Your task to perform on an android device: Go to wifi settings Image 0: 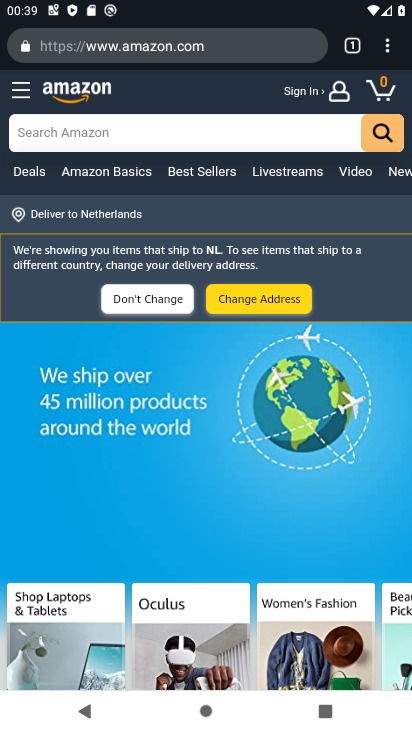
Step 0: press home button
Your task to perform on an android device: Go to wifi settings Image 1: 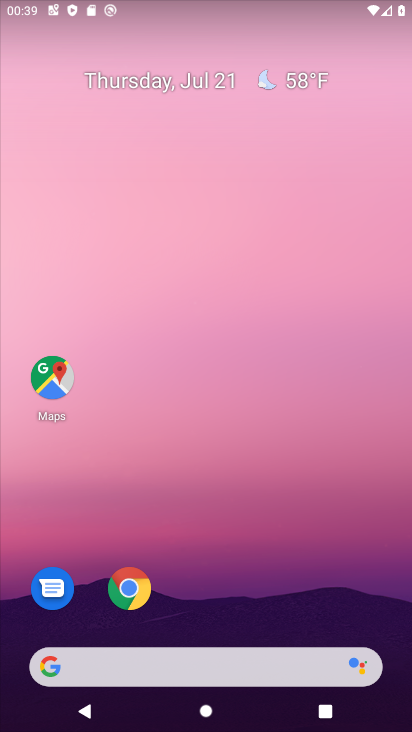
Step 1: drag from (200, 557) to (234, 18)
Your task to perform on an android device: Go to wifi settings Image 2: 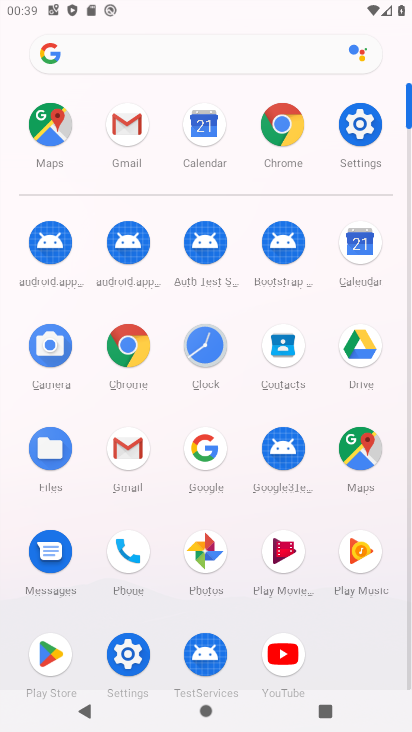
Step 2: click (355, 141)
Your task to perform on an android device: Go to wifi settings Image 3: 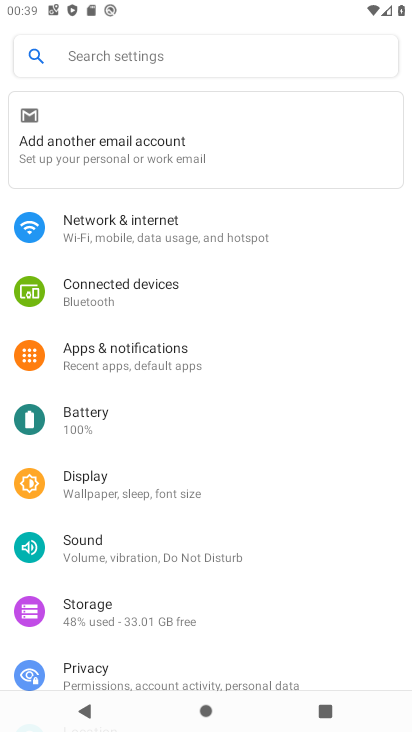
Step 3: click (103, 240)
Your task to perform on an android device: Go to wifi settings Image 4: 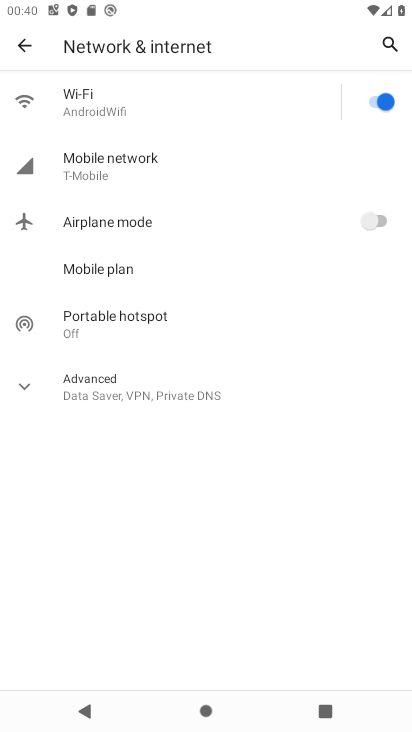
Step 4: click (119, 103)
Your task to perform on an android device: Go to wifi settings Image 5: 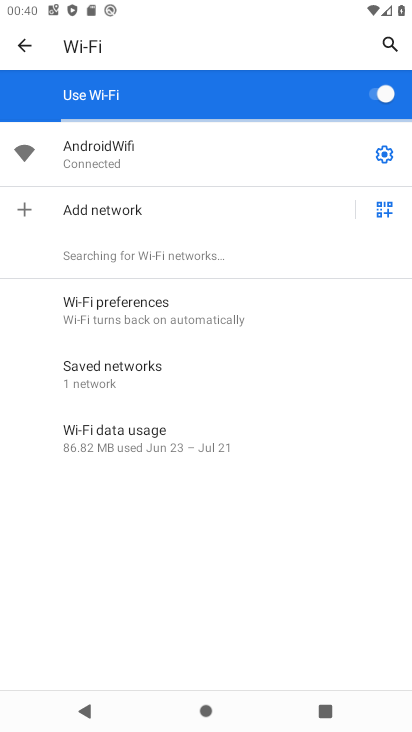
Step 5: task complete